Your task to perform on an android device: Do I have any events today? Image 0: 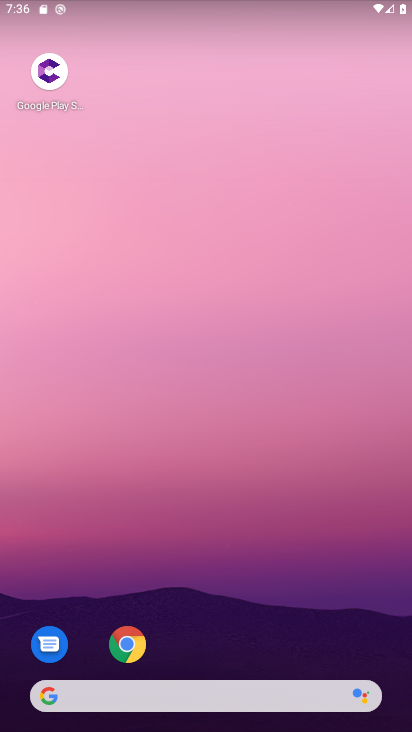
Step 0: drag from (290, 642) to (196, 194)
Your task to perform on an android device: Do I have any events today? Image 1: 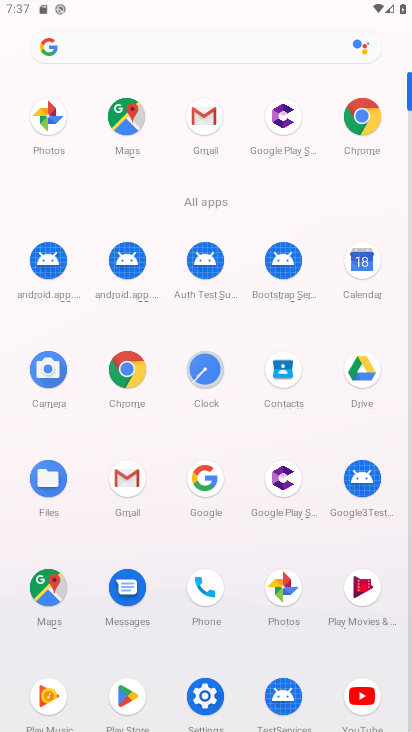
Step 1: click (361, 294)
Your task to perform on an android device: Do I have any events today? Image 2: 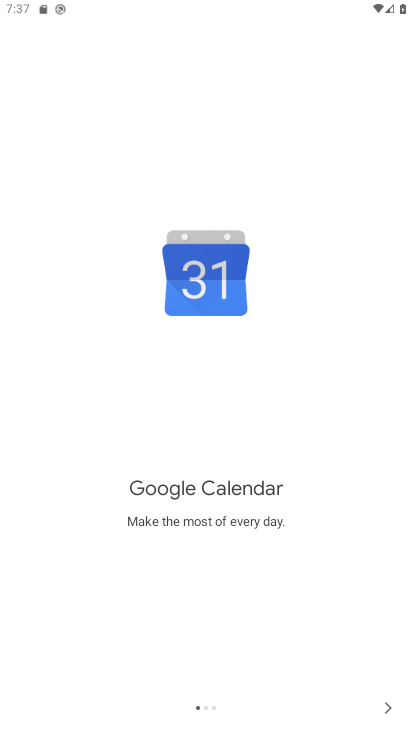
Step 2: click (392, 714)
Your task to perform on an android device: Do I have any events today? Image 3: 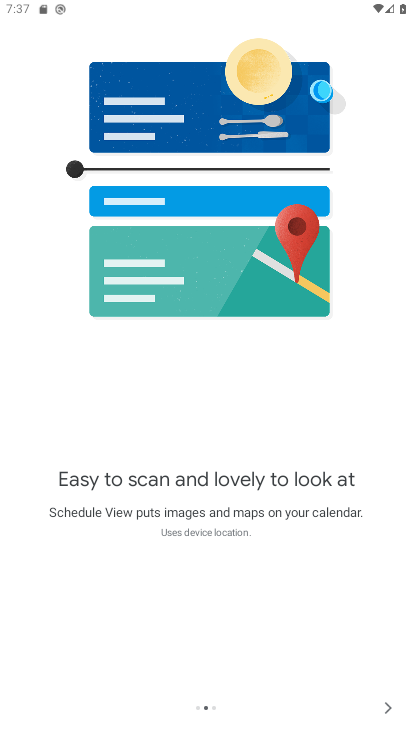
Step 3: click (379, 703)
Your task to perform on an android device: Do I have any events today? Image 4: 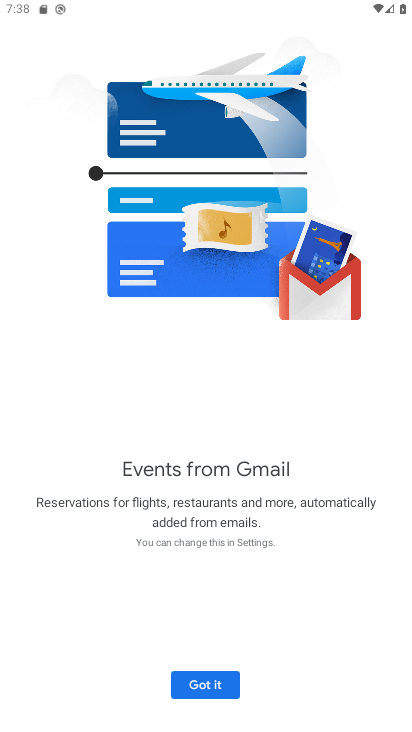
Step 4: click (212, 680)
Your task to perform on an android device: Do I have any events today? Image 5: 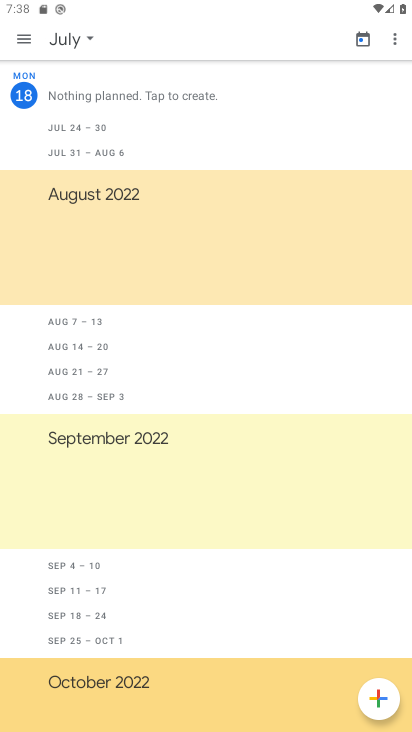
Step 5: task complete